Your task to perform on an android device: Do I have any events tomorrow? Image 0: 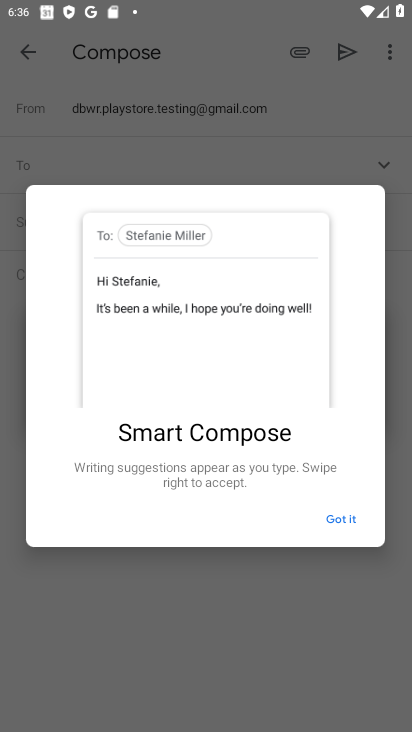
Step 0: press home button
Your task to perform on an android device: Do I have any events tomorrow? Image 1: 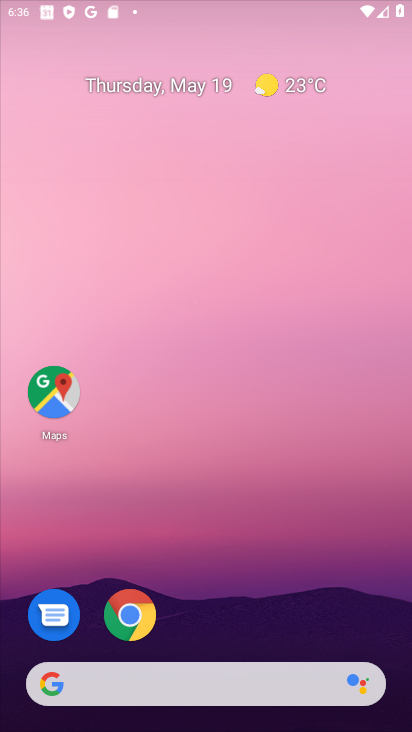
Step 1: drag from (367, 592) to (316, 45)
Your task to perform on an android device: Do I have any events tomorrow? Image 2: 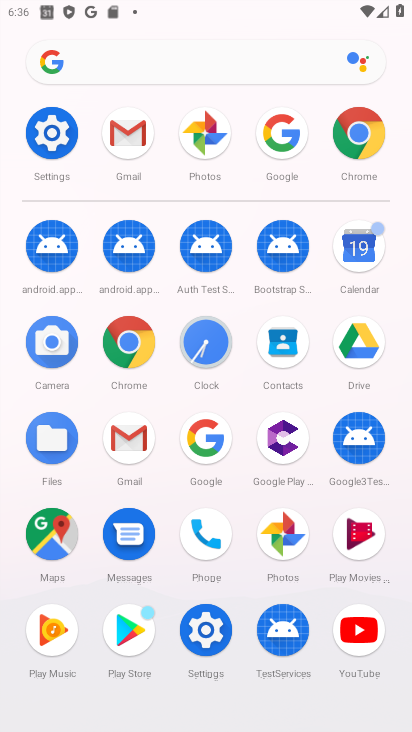
Step 2: click (344, 262)
Your task to perform on an android device: Do I have any events tomorrow? Image 3: 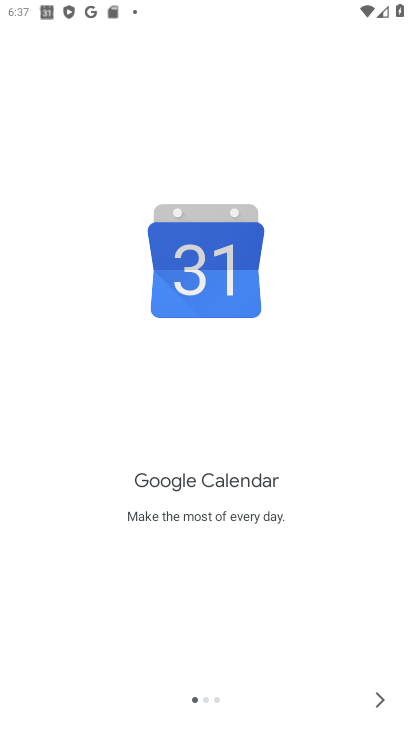
Step 3: click (372, 702)
Your task to perform on an android device: Do I have any events tomorrow? Image 4: 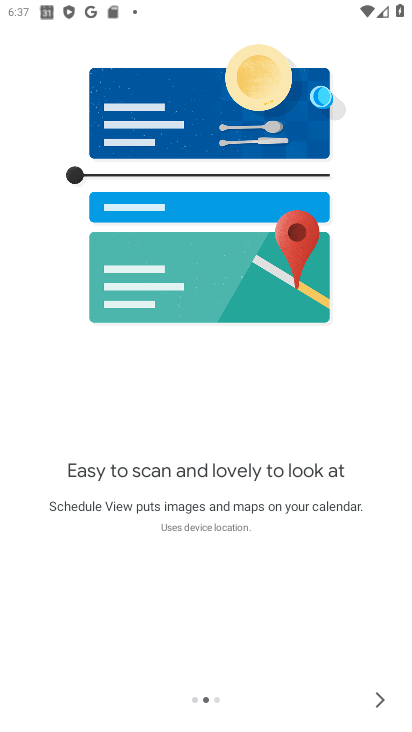
Step 4: click (372, 702)
Your task to perform on an android device: Do I have any events tomorrow? Image 5: 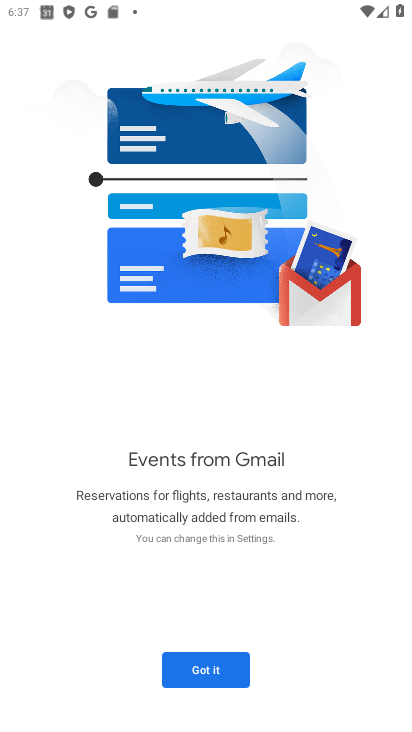
Step 5: click (171, 667)
Your task to perform on an android device: Do I have any events tomorrow? Image 6: 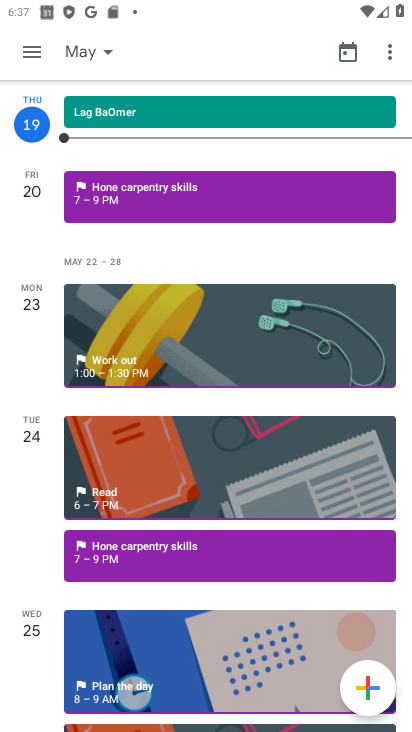
Step 6: click (67, 41)
Your task to perform on an android device: Do I have any events tomorrow? Image 7: 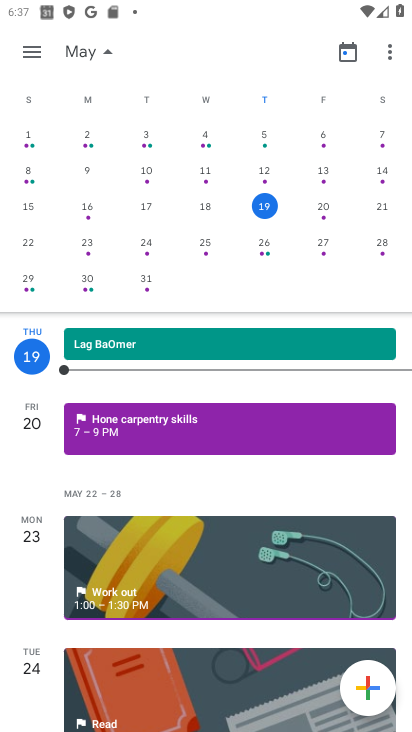
Step 7: click (383, 205)
Your task to perform on an android device: Do I have any events tomorrow? Image 8: 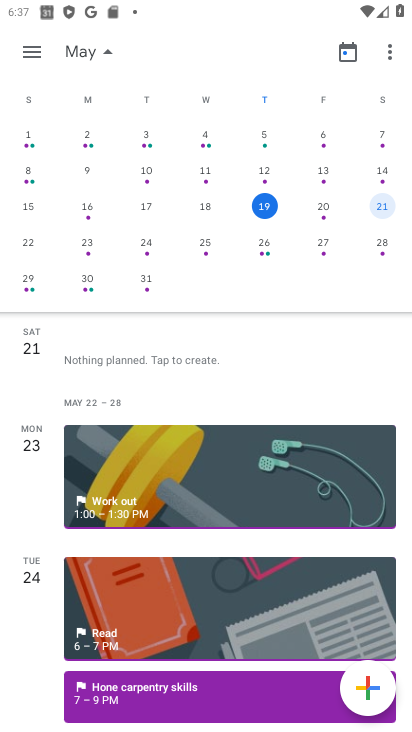
Step 8: task complete